Your task to perform on an android device: Add "razer deathadder" to the cart on bestbuy.com Image 0: 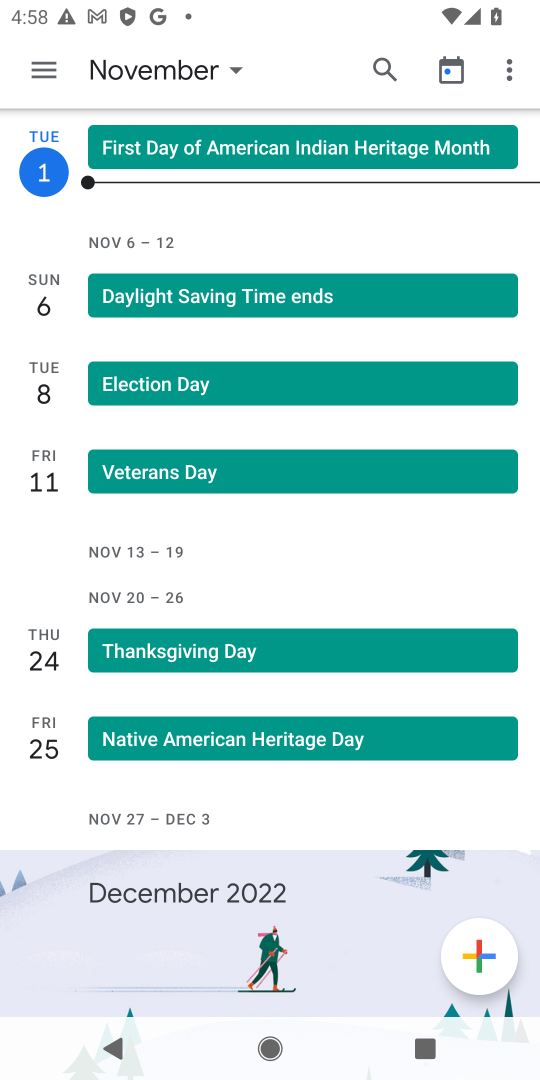
Step 0: press home button
Your task to perform on an android device: Add "razer deathadder" to the cart on bestbuy.com Image 1: 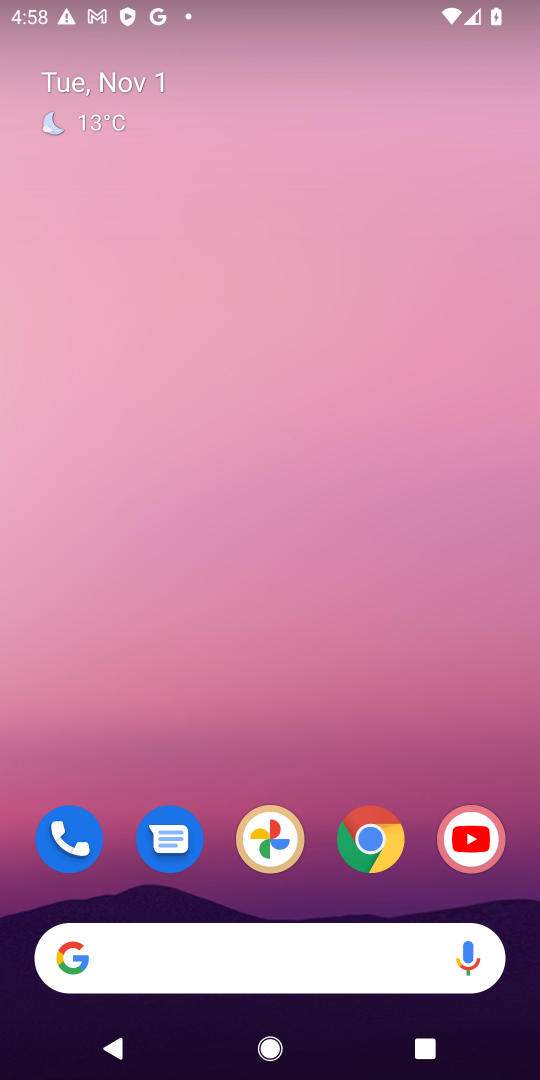
Step 1: drag from (321, 895) to (294, 195)
Your task to perform on an android device: Add "razer deathadder" to the cart on bestbuy.com Image 2: 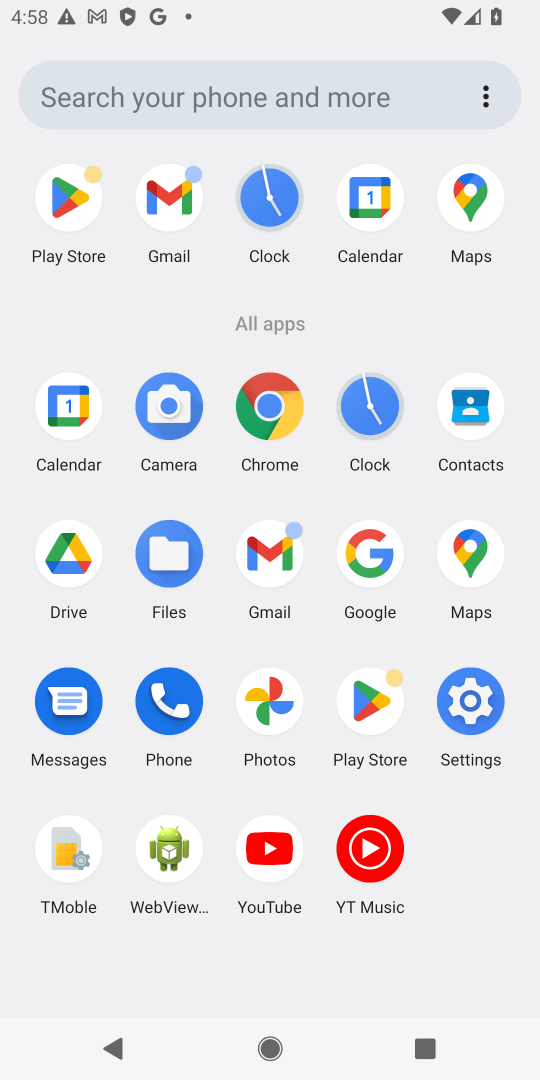
Step 2: click (265, 403)
Your task to perform on an android device: Add "razer deathadder" to the cart on bestbuy.com Image 3: 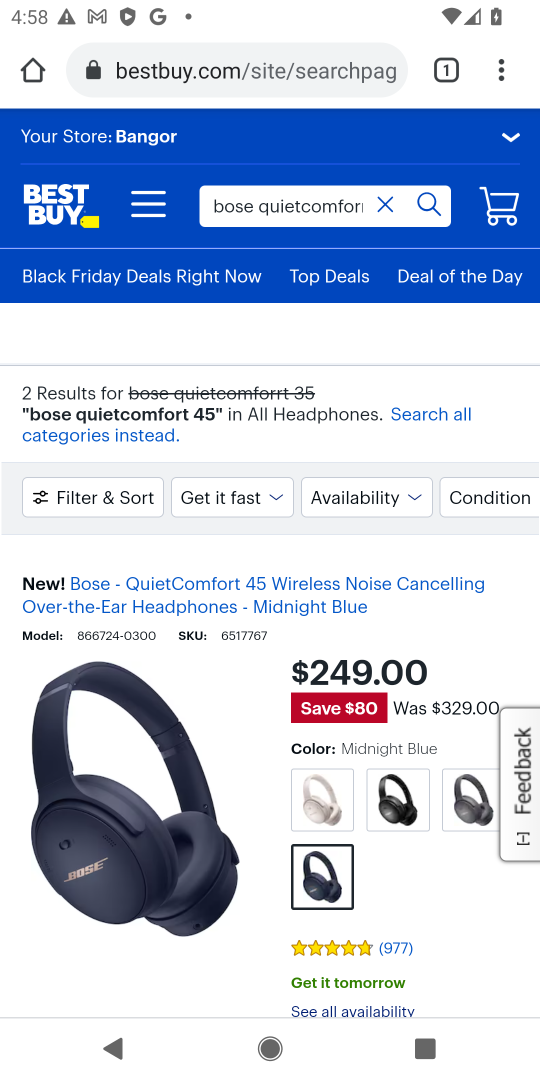
Step 3: click (392, 194)
Your task to perform on an android device: Add "razer deathadder" to the cart on bestbuy.com Image 4: 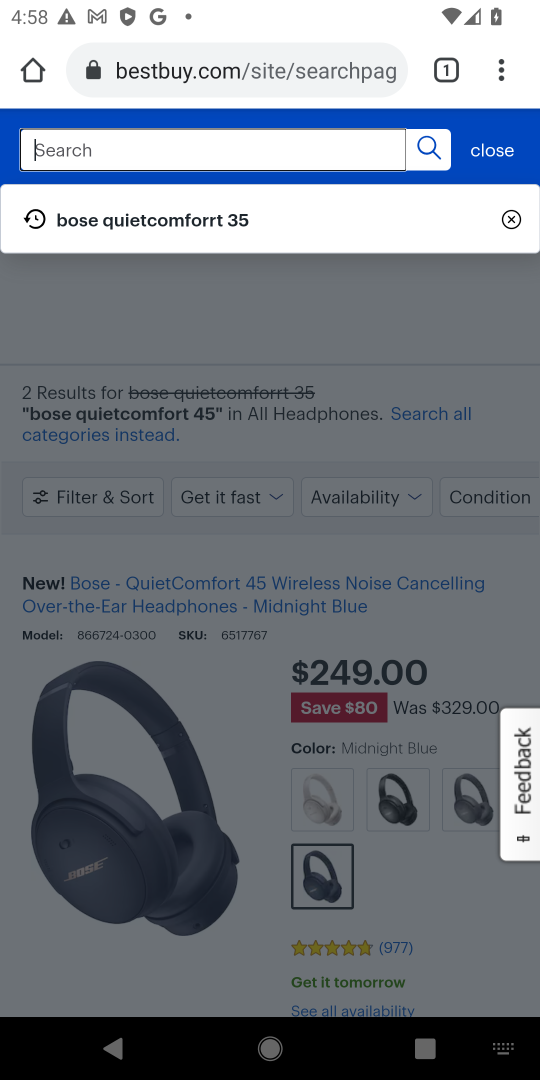
Step 4: type "razer deathadder"
Your task to perform on an android device: Add "razer deathadder" to the cart on bestbuy.com Image 5: 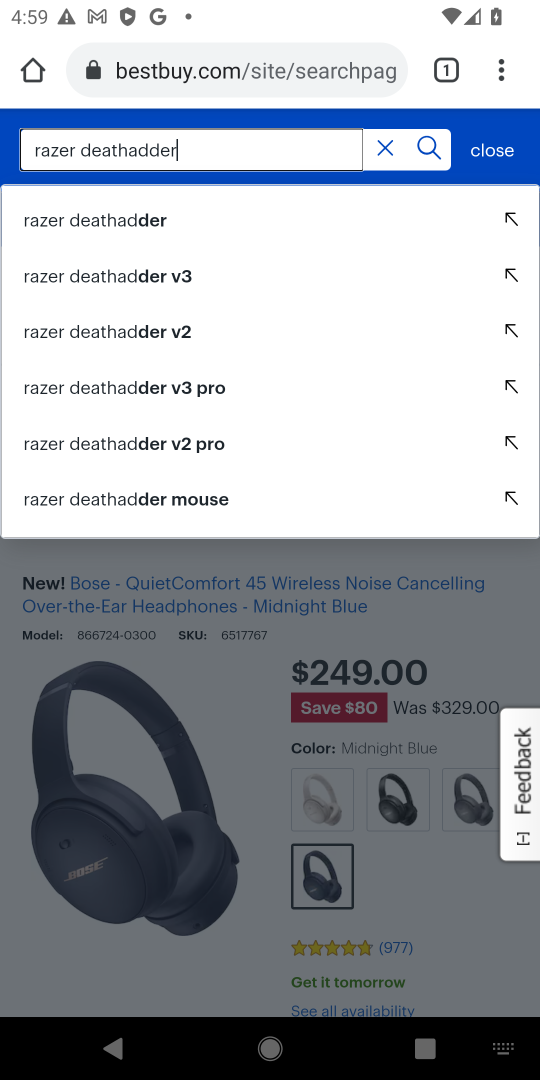
Step 5: press enter
Your task to perform on an android device: Add "razer deathadder" to the cart on bestbuy.com Image 6: 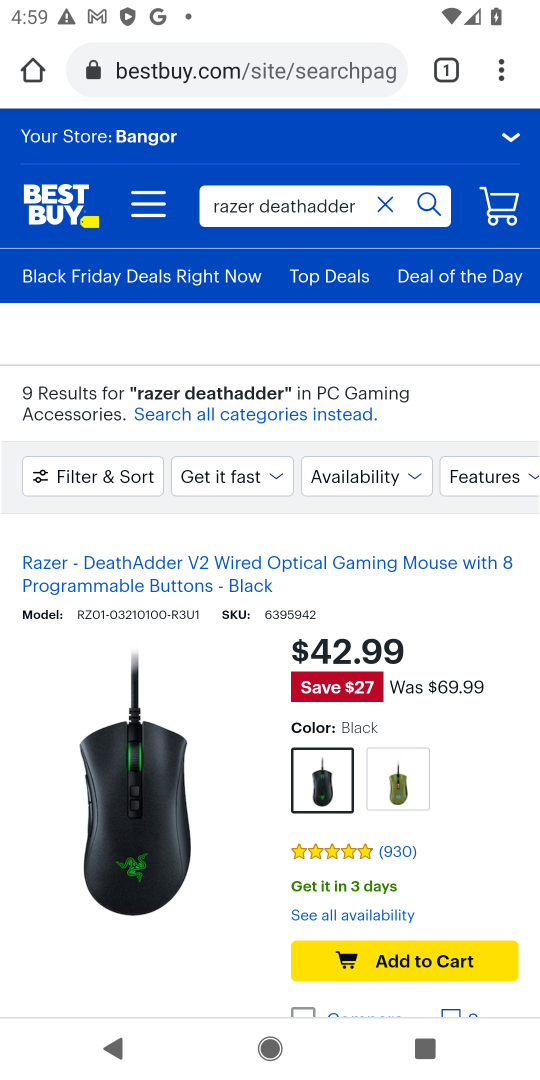
Step 6: drag from (219, 566) to (225, 264)
Your task to perform on an android device: Add "razer deathadder" to the cart on bestbuy.com Image 7: 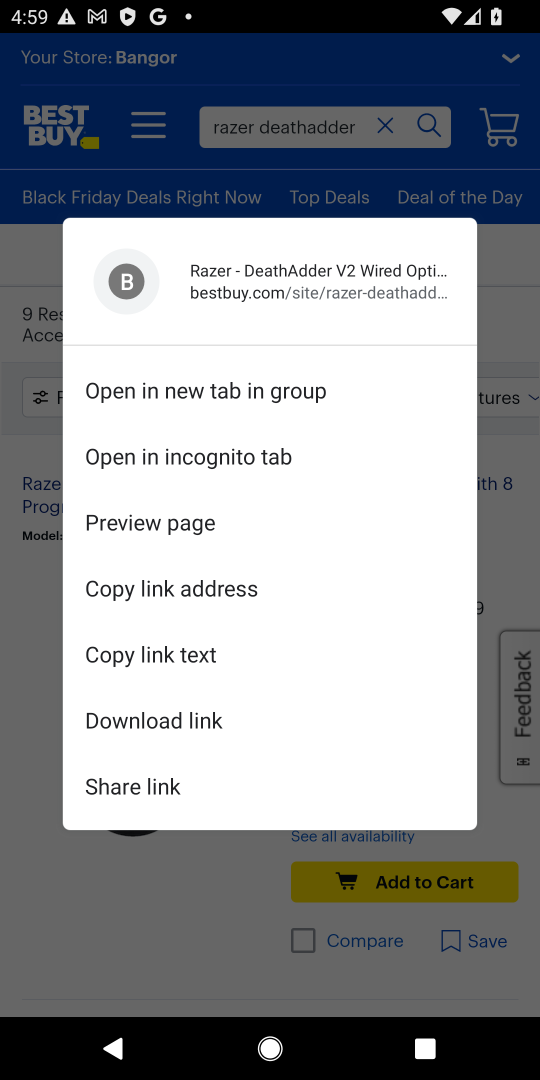
Step 7: click (11, 599)
Your task to perform on an android device: Add "razer deathadder" to the cart on bestbuy.com Image 8: 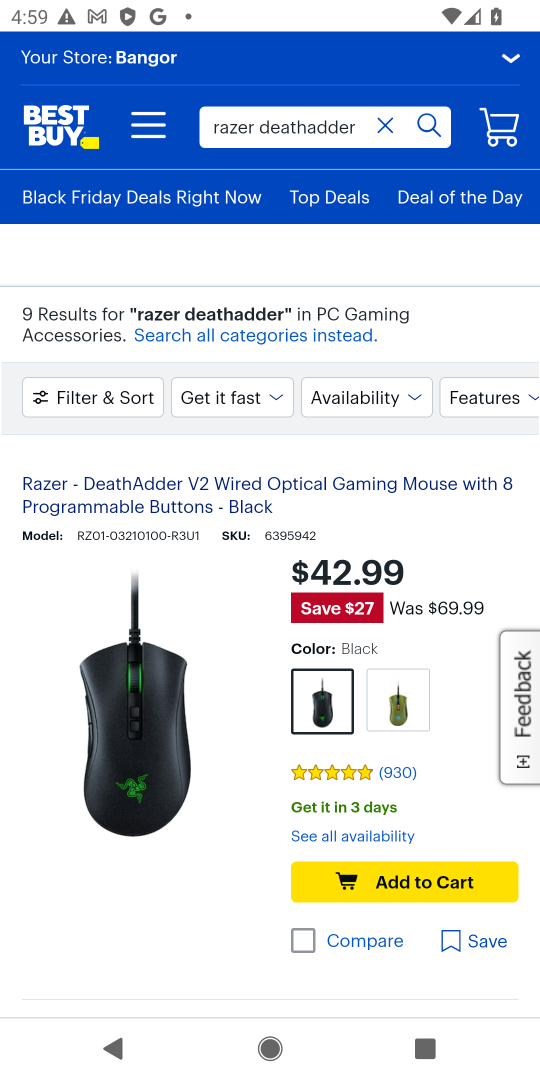
Step 8: click (436, 883)
Your task to perform on an android device: Add "razer deathadder" to the cart on bestbuy.com Image 9: 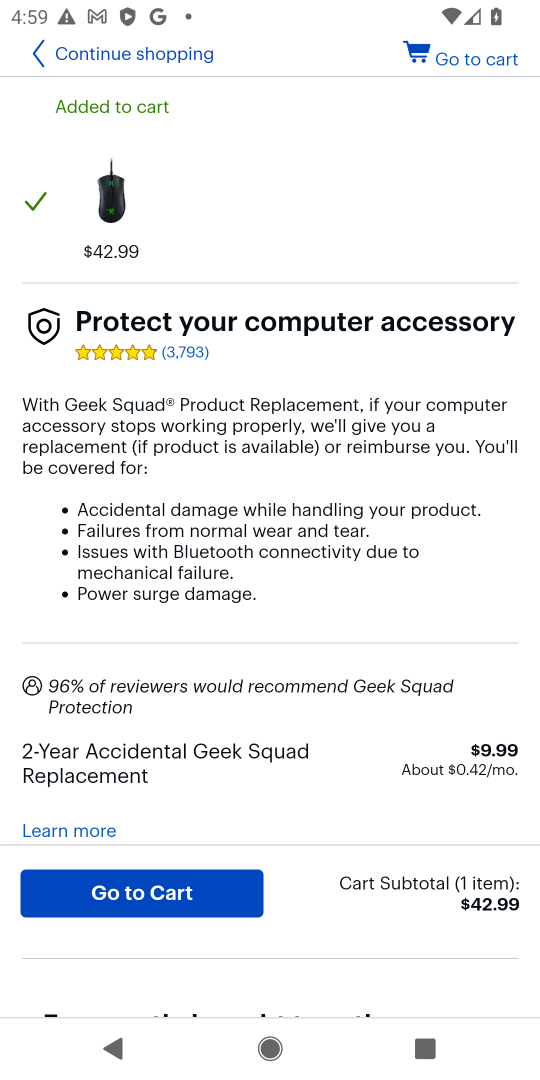
Step 9: task complete